Your task to perform on an android device: View the shopping cart on amazon.com. Image 0: 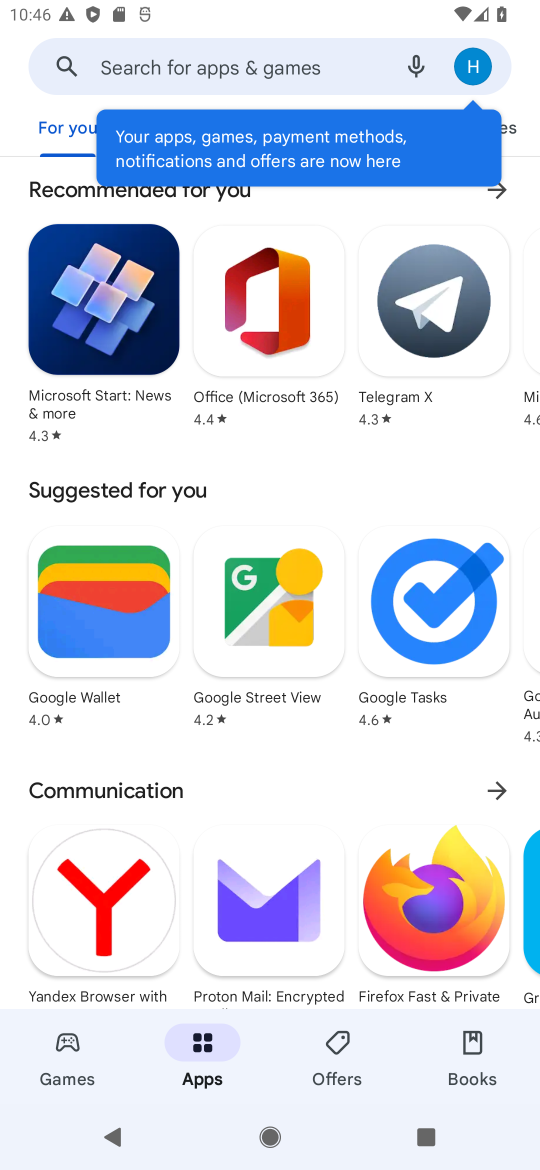
Step 0: press home button
Your task to perform on an android device: View the shopping cart on amazon.com. Image 1: 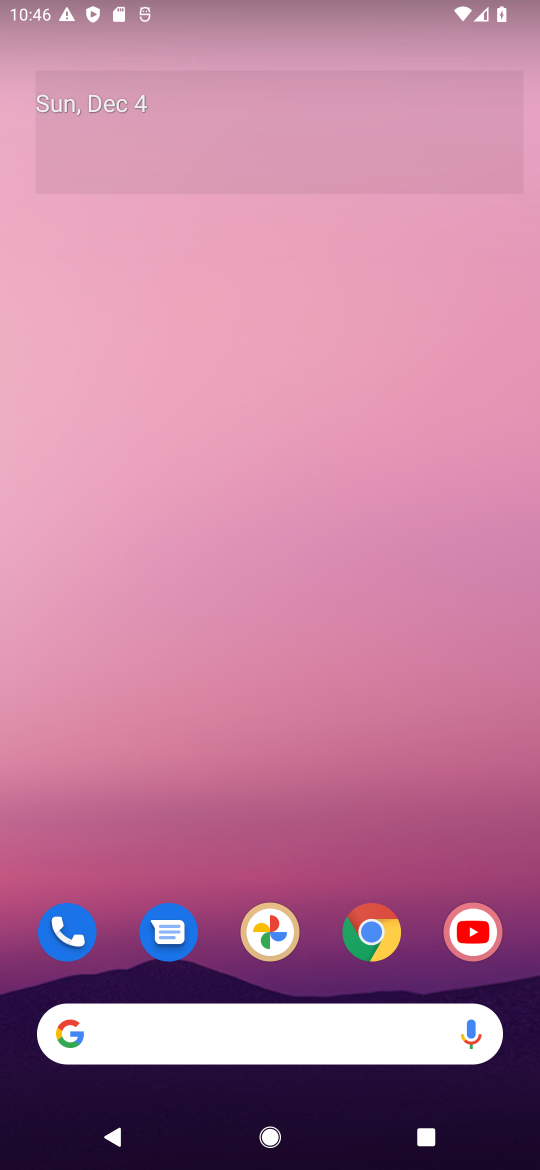
Step 1: click (377, 931)
Your task to perform on an android device: View the shopping cart on amazon.com. Image 2: 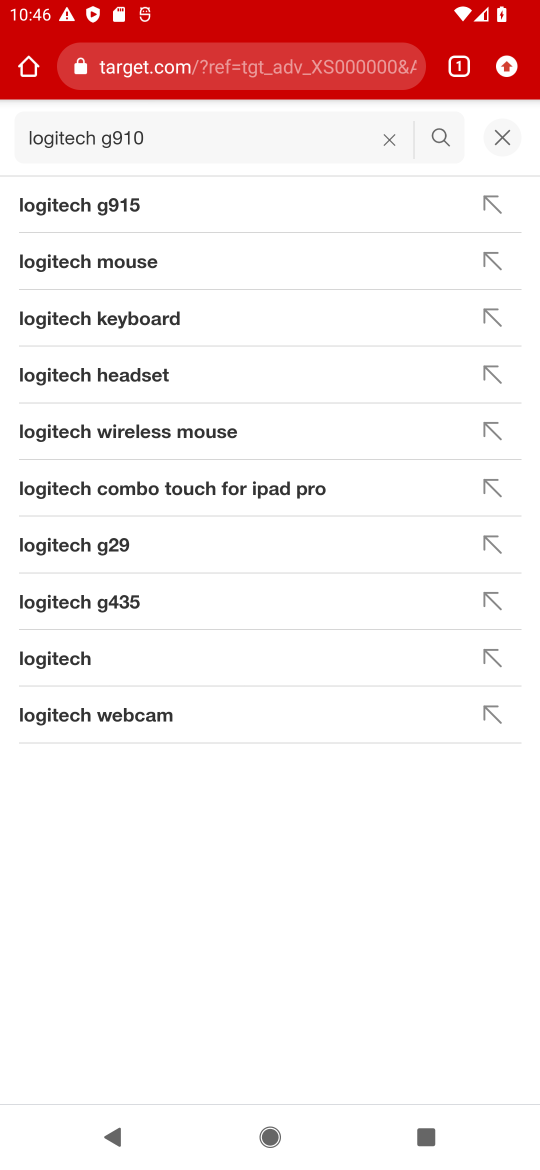
Step 2: click (256, 61)
Your task to perform on an android device: View the shopping cart on amazon.com. Image 3: 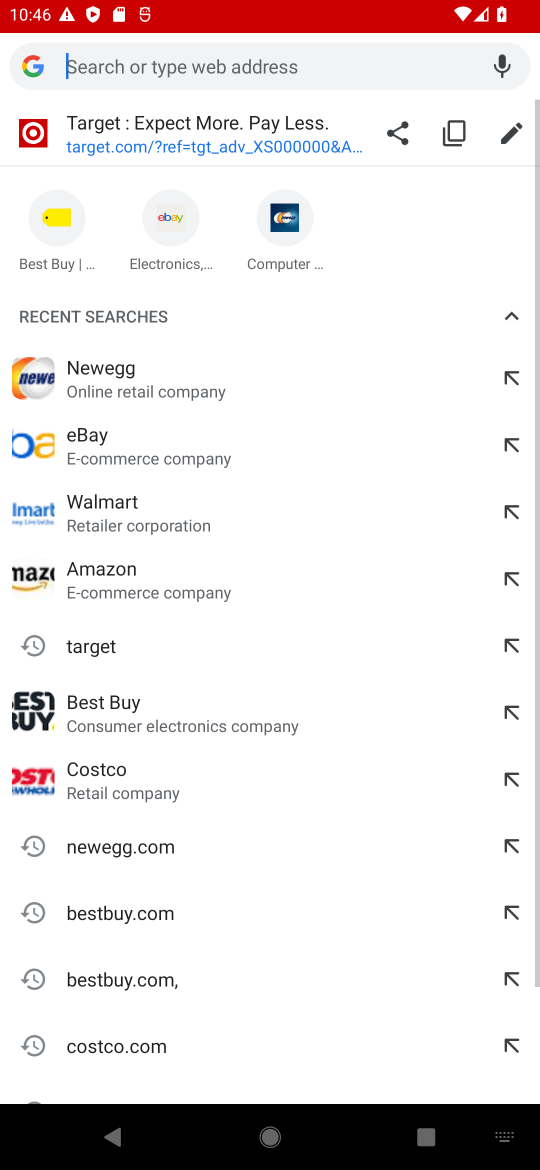
Step 3: click (120, 579)
Your task to perform on an android device: View the shopping cart on amazon.com. Image 4: 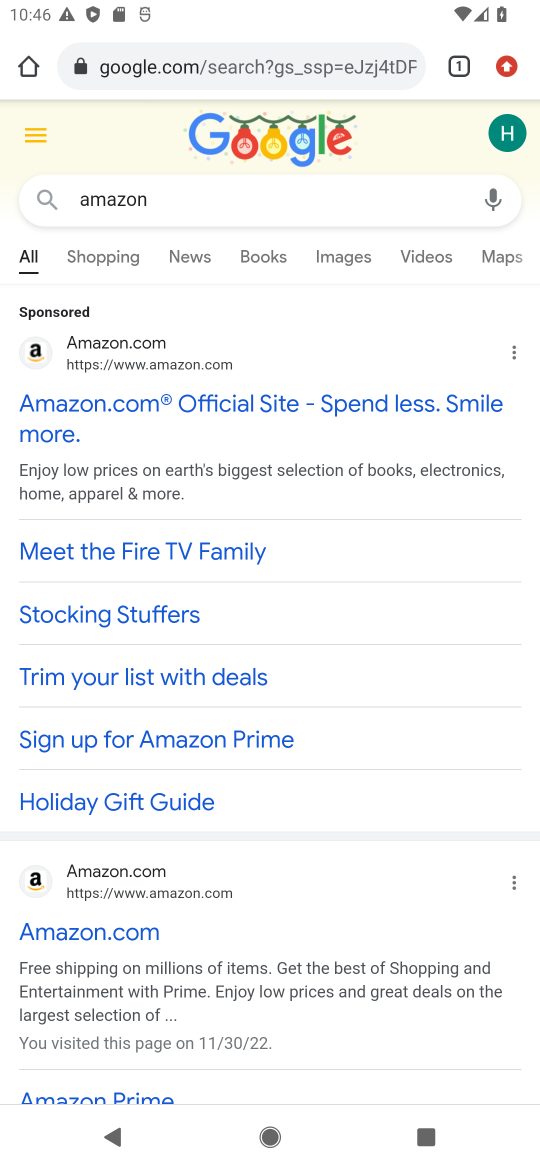
Step 4: click (158, 407)
Your task to perform on an android device: View the shopping cart on amazon.com. Image 5: 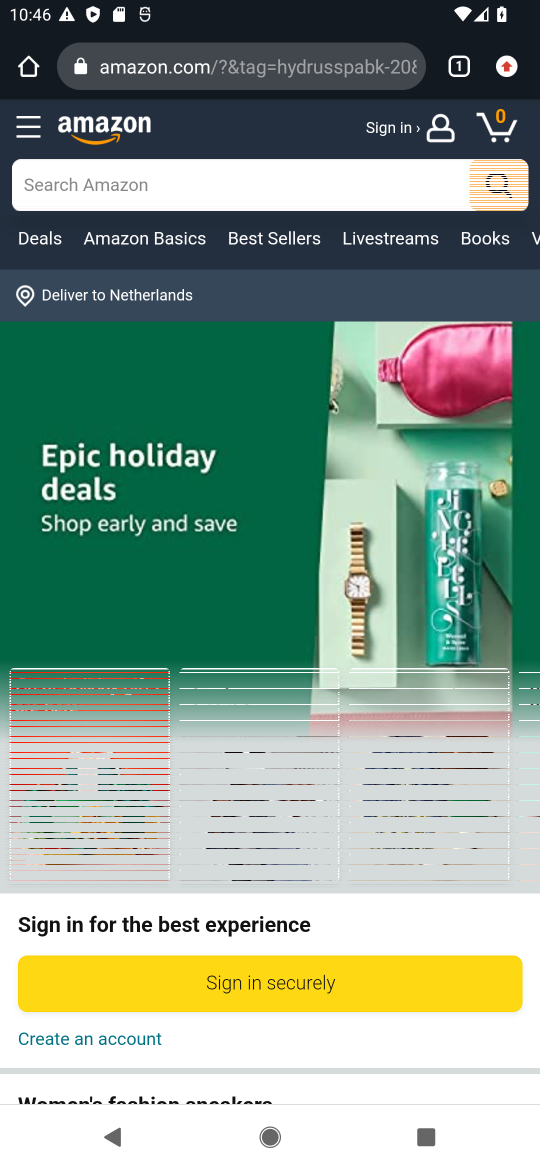
Step 5: click (500, 128)
Your task to perform on an android device: View the shopping cart on amazon.com. Image 6: 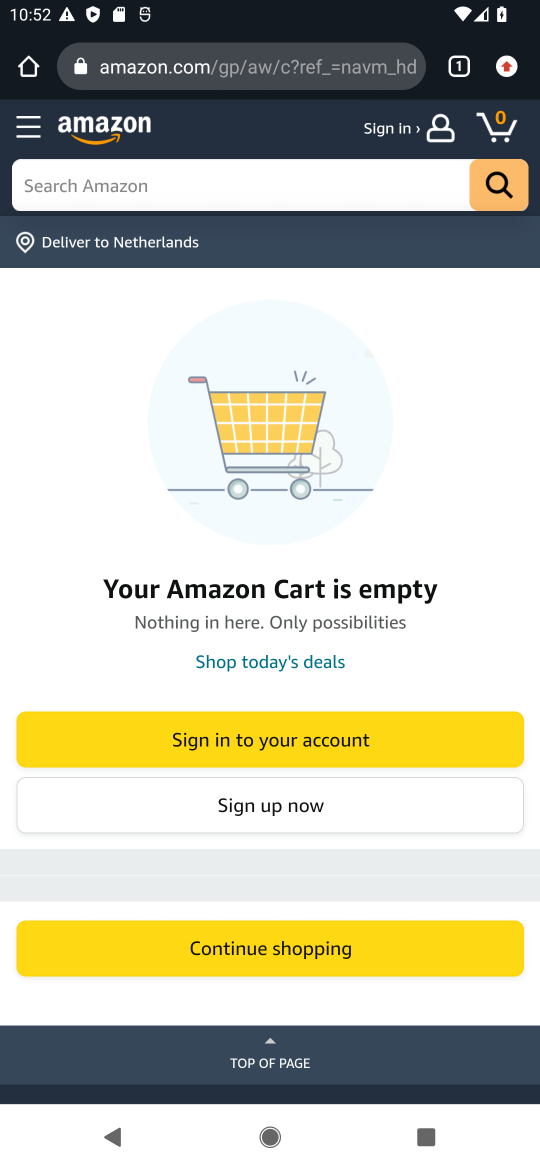
Step 6: task complete